Your task to perform on an android device: toggle javascript in the chrome app Image 0: 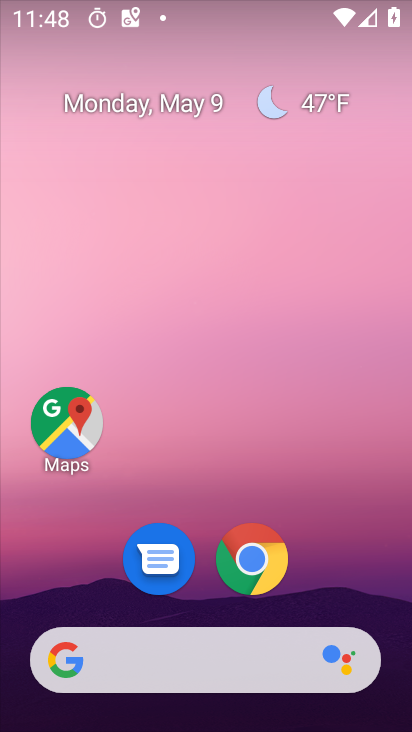
Step 0: click (245, 563)
Your task to perform on an android device: toggle javascript in the chrome app Image 1: 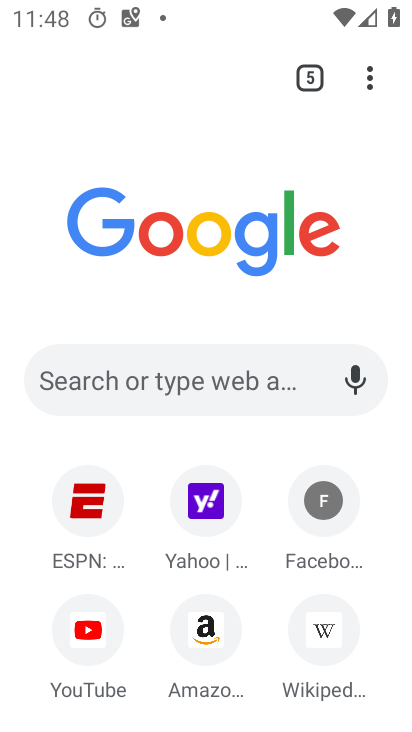
Step 1: drag from (371, 63) to (87, 635)
Your task to perform on an android device: toggle javascript in the chrome app Image 2: 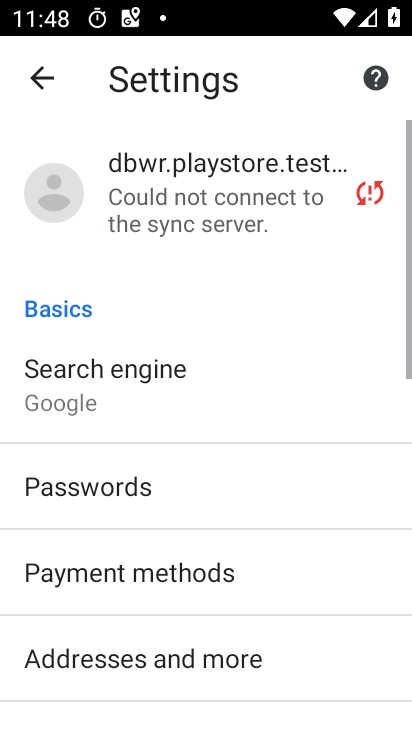
Step 2: drag from (179, 525) to (156, 73)
Your task to perform on an android device: toggle javascript in the chrome app Image 3: 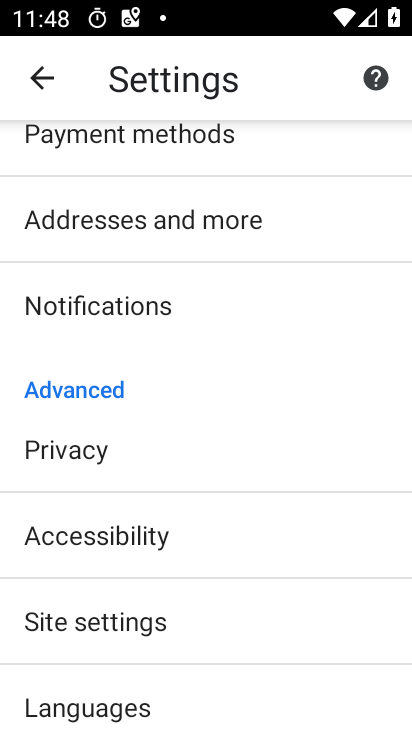
Step 3: click (135, 616)
Your task to perform on an android device: toggle javascript in the chrome app Image 4: 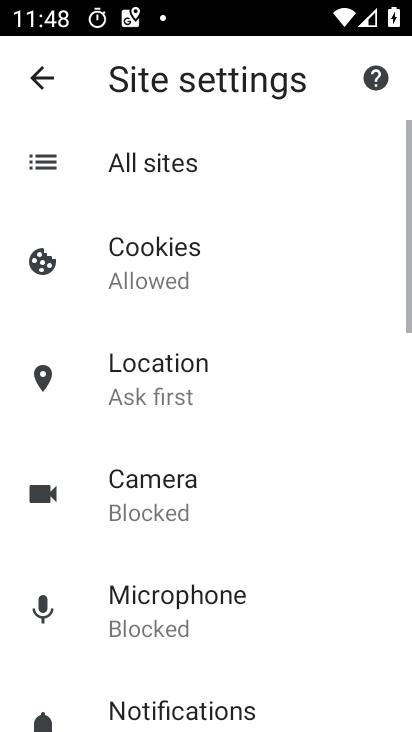
Step 4: drag from (180, 632) to (194, 139)
Your task to perform on an android device: toggle javascript in the chrome app Image 5: 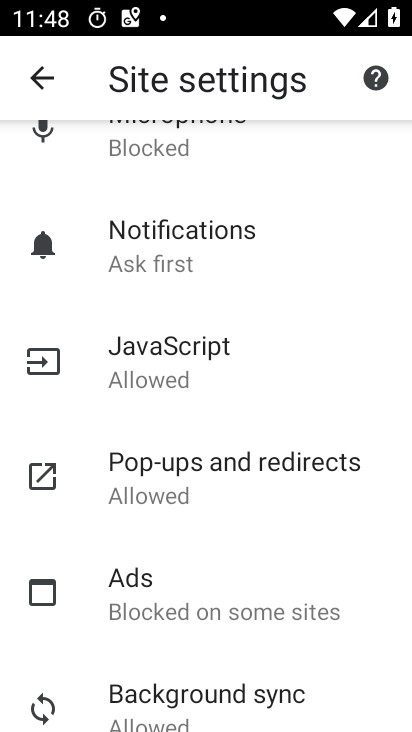
Step 5: click (182, 370)
Your task to perform on an android device: toggle javascript in the chrome app Image 6: 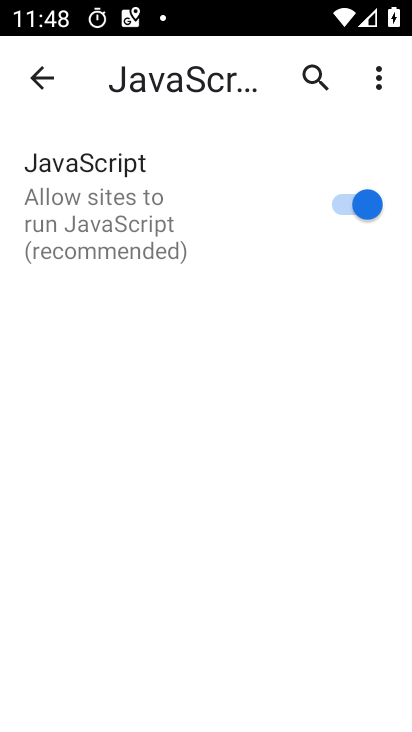
Step 6: click (315, 207)
Your task to perform on an android device: toggle javascript in the chrome app Image 7: 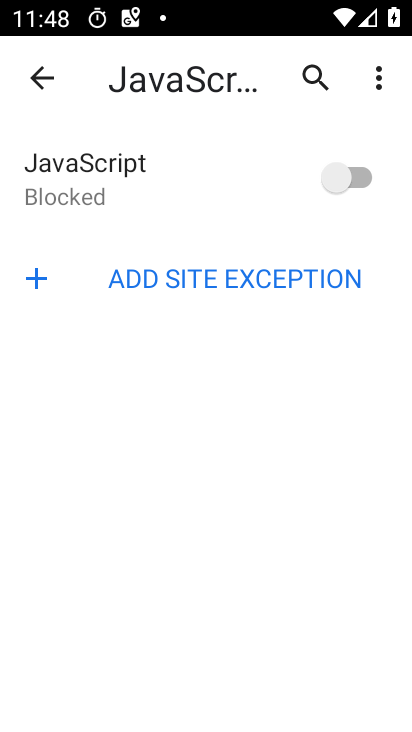
Step 7: task complete